Your task to perform on an android device: Open the calendar app, open the side menu, and click the "Day" option Image 0: 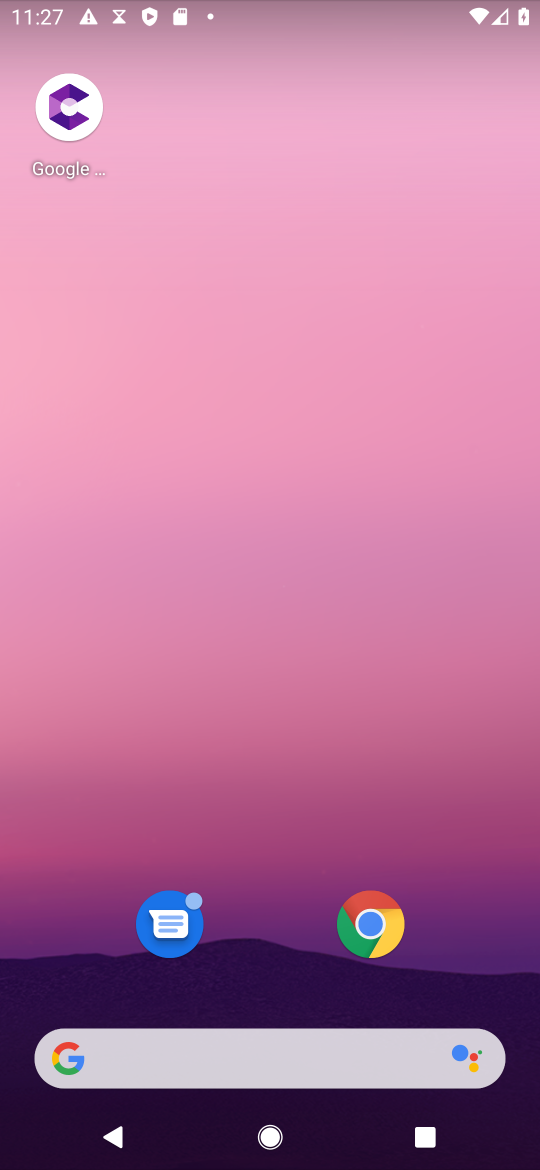
Step 0: drag from (246, 1003) to (212, 396)
Your task to perform on an android device: Open the calendar app, open the side menu, and click the "Day" option Image 1: 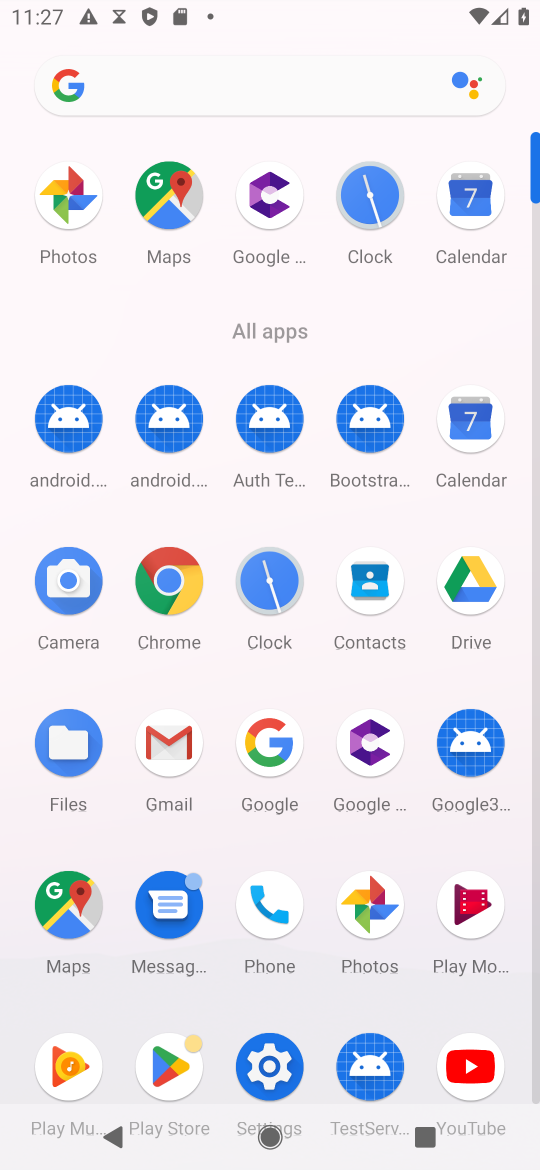
Step 1: click (485, 424)
Your task to perform on an android device: Open the calendar app, open the side menu, and click the "Day" option Image 2: 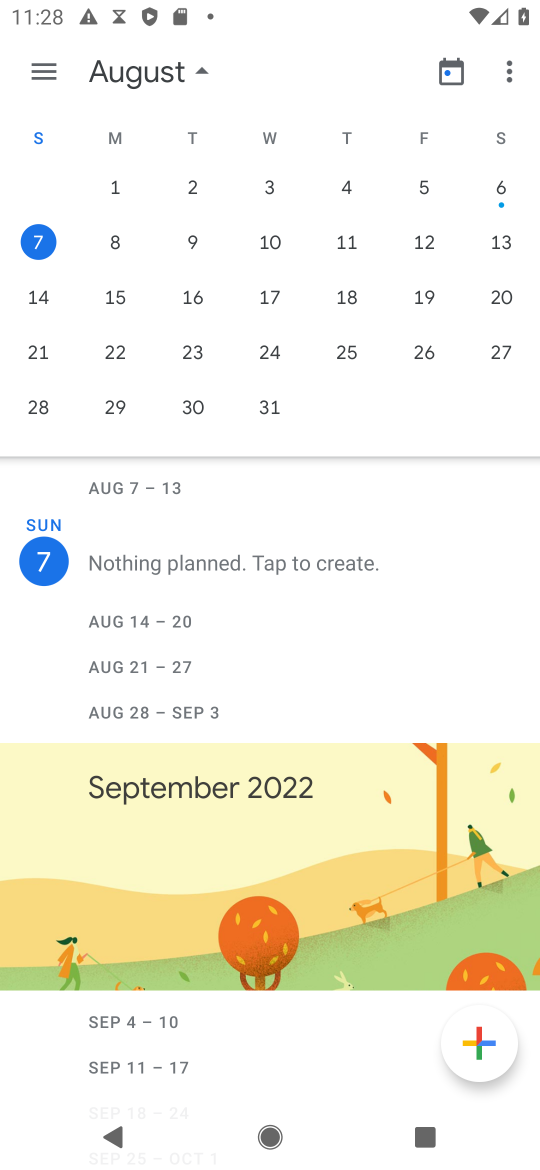
Step 2: click (39, 76)
Your task to perform on an android device: Open the calendar app, open the side menu, and click the "Day" option Image 3: 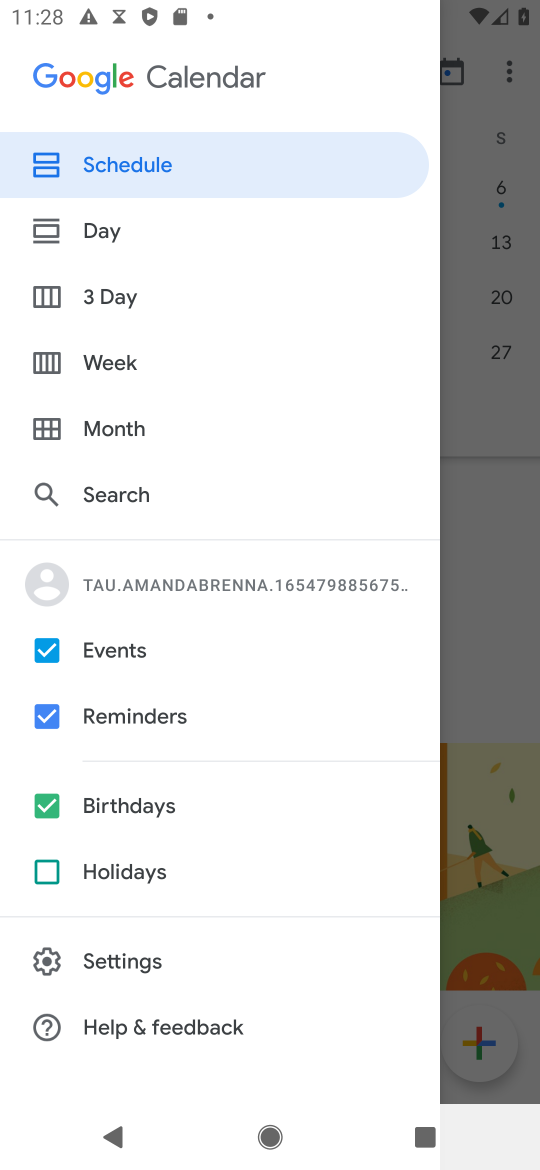
Step 3: click (89, 232)
Your task to perform on an android device: Open the calendar app, open the side menu, and click the "Day" option Image 4: 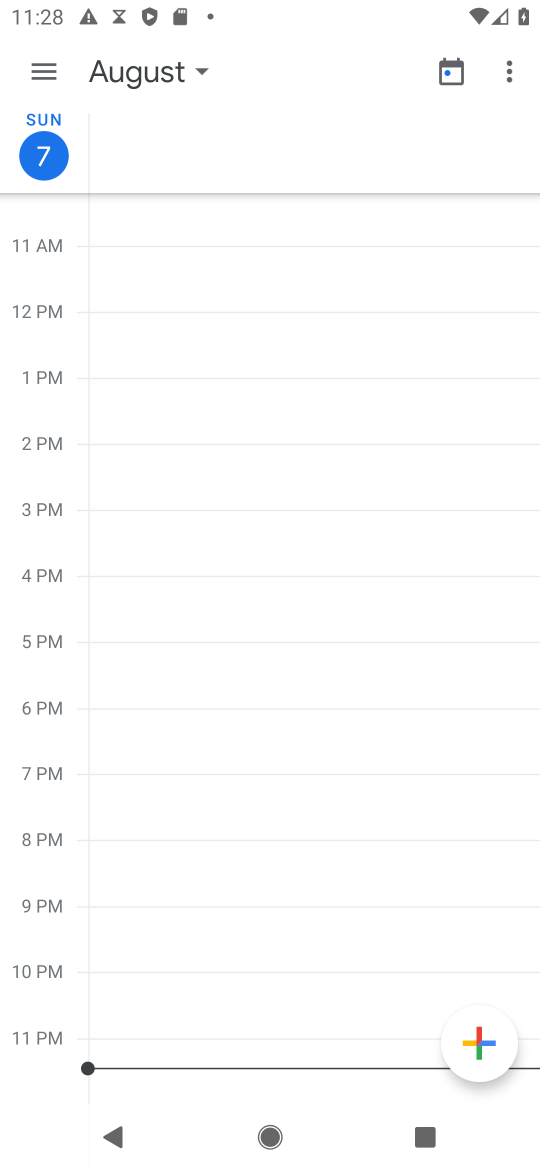
Step 4: task complete